Your task to perform on an android device: Go to Reddit.com Image 0: 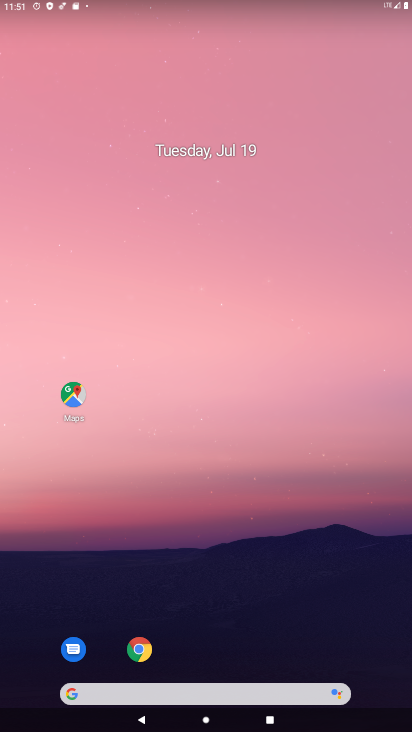
Step 0: drag from (232, 728) to (241, 298)
Your task to perform on an android device: Go to Reddit.com Image 1: 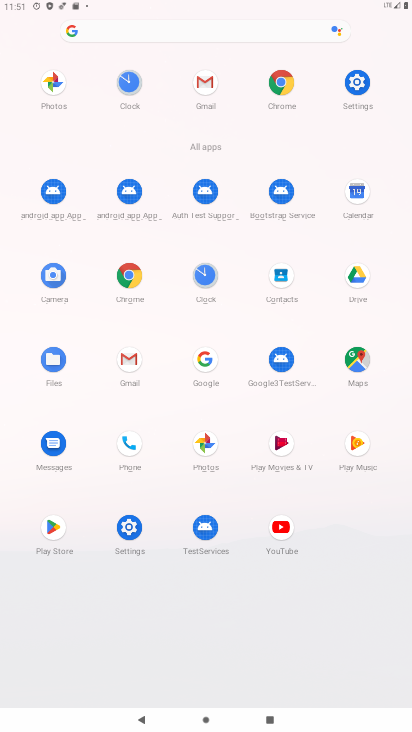
Step 1: click (279, 80)
Your task to perform on an android device: Go to Reddit.com Image 2: 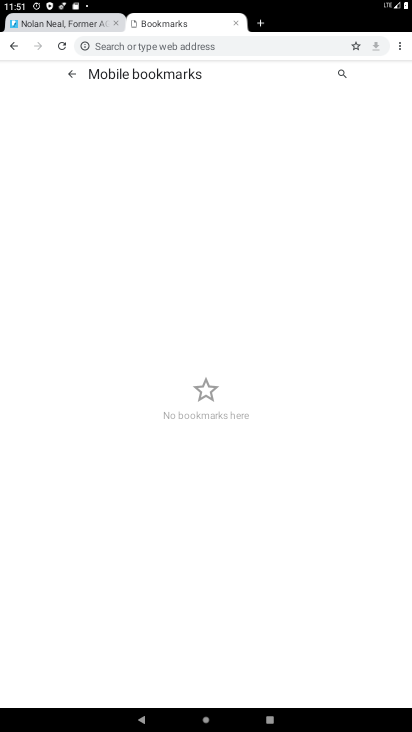
Step 2: click (400, 51)
Your task to perform on an android device: Go to Reddit.com Image 3: 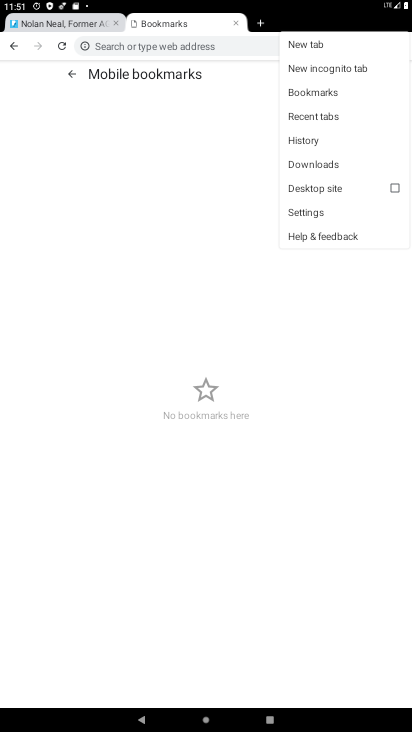
Step 3: click (304, 49)
Your task to perform on an android device: Go to Reddit.com Image 4: 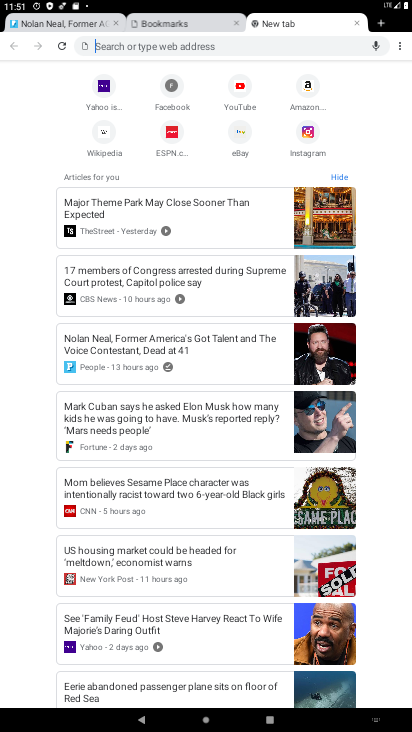
Step 4: type "Reddit.com"
Your task to perform on an android device: Go to Reddit.com Image 5: 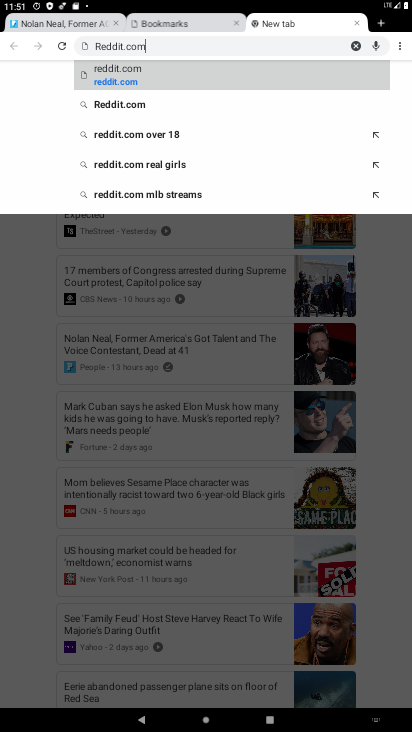
Step 5: click (136, 72)
Your task to perform on an android device: Go to Reddit.com Image 6: 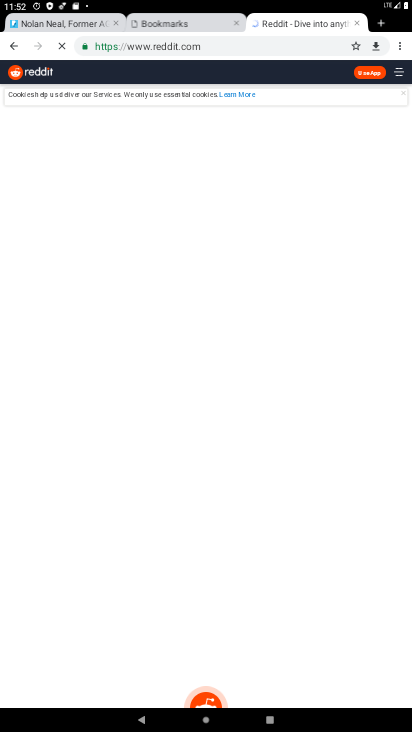
Step 6: task complete